Your task to perform on an android device: toggle location history Image 0: 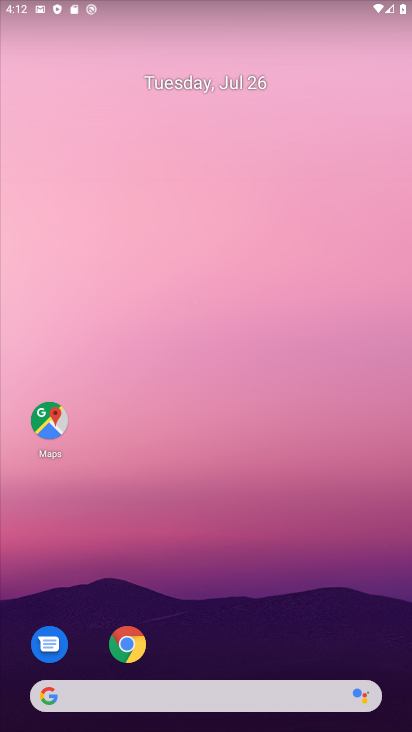
Step 0: drag from (238, 627) to (241, 12)
Your task to perform on an android device: toggle location history Image 1: 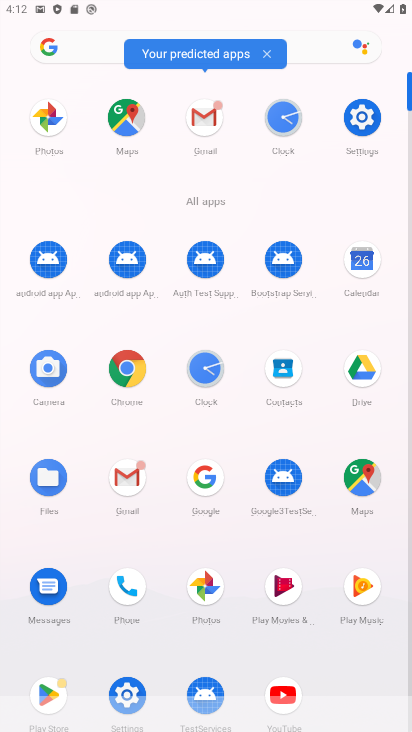
Step 1: click (365, 475)
Your task to perform on an android device: toggle location history Image 2: 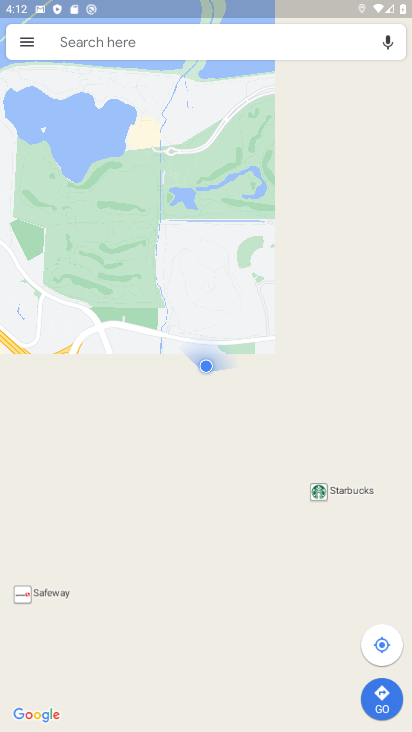
Step 2: click (21, 35)
Your task to perform on an android device: toggle location history Image 3: 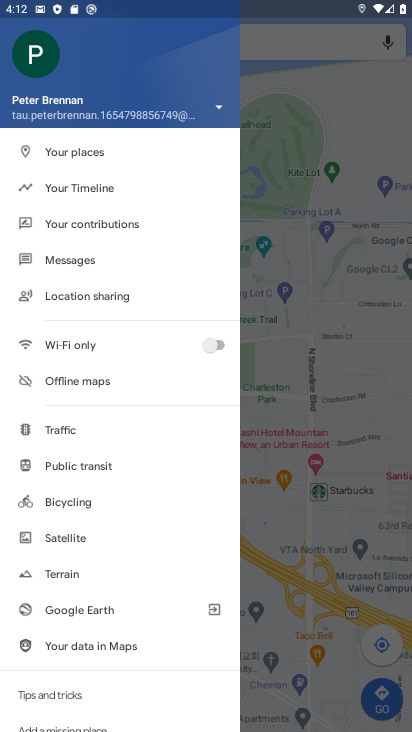
Step 3: click (91, 188)
Your task to perform on an android device: toggle location history Image 4: 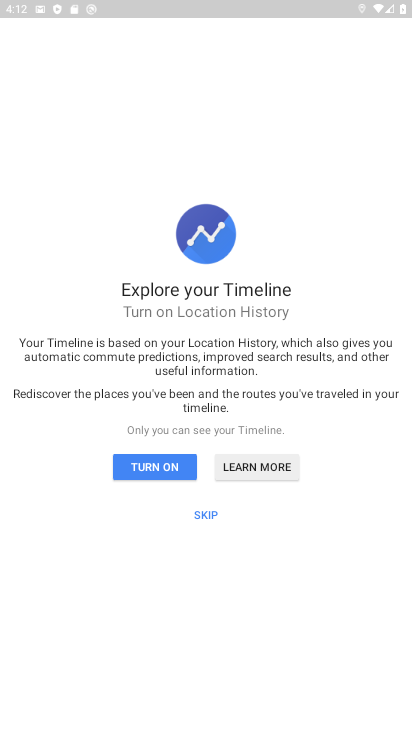
Step 4: click (175, 468)
Your task to perform on an android device: toggle location history Image 5: 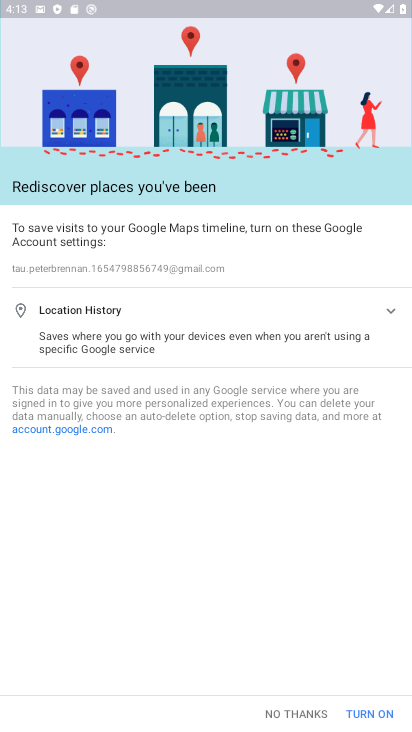
Step 5: click (108, 323)
Your task to perform on an android device: toggle location history Image 6: 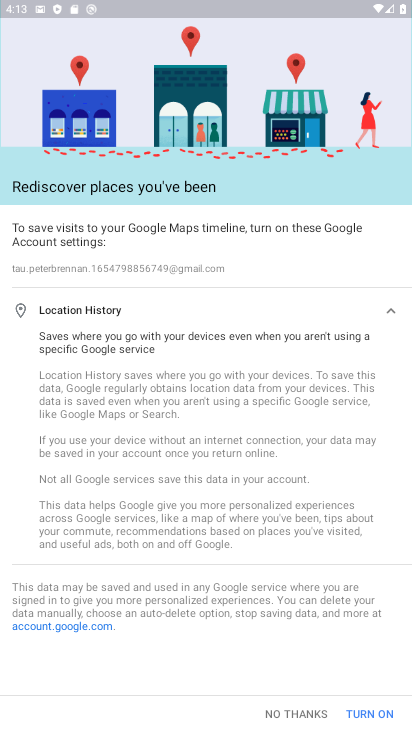
Step 6: click (349, 717)
Your task to perform on an android device: toggle location history Image 7: 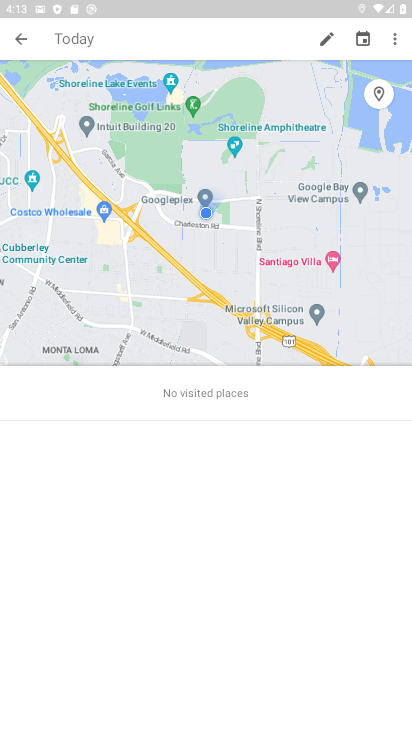
Step 7: click (390, 39)
Your task to perform on an android device: toggle location history Image 8: 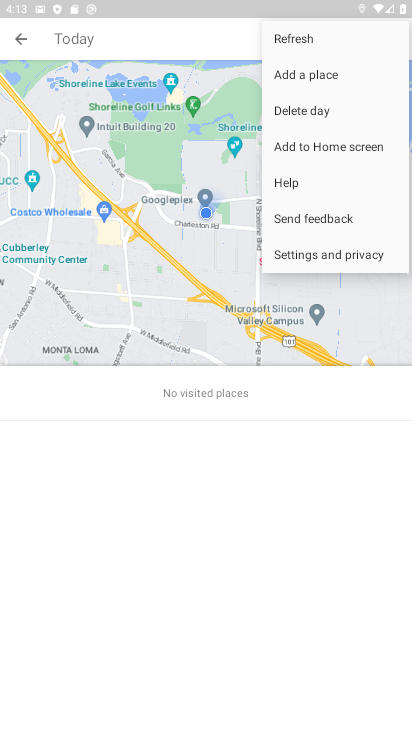
Step 8: click (312, 260)
Your task to perform on an android device: toggle location history Image 9: 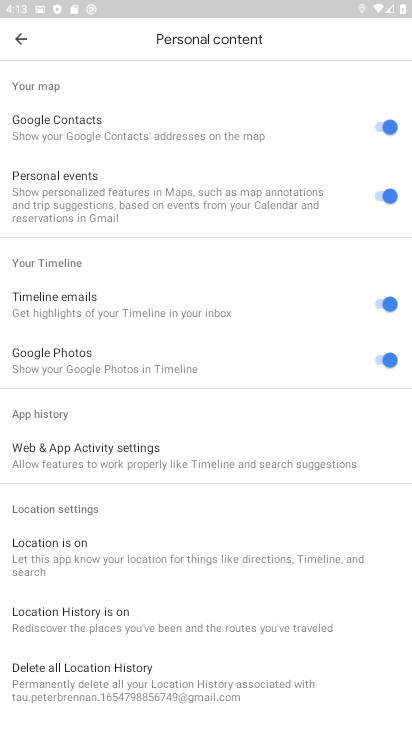
Step 9: click (123, 610)
Your task to perform on an android device: toggle location history Image 10: 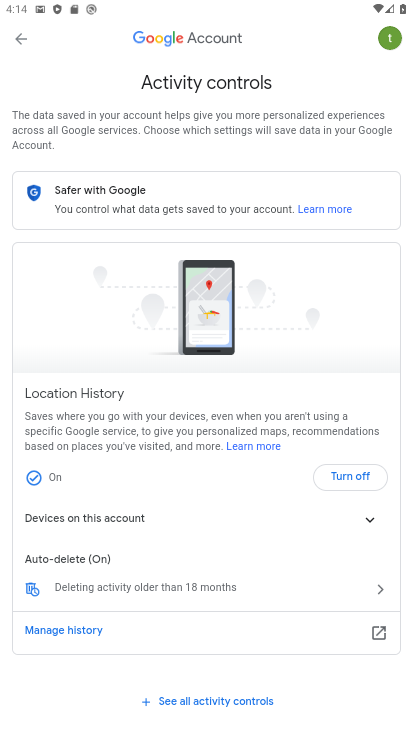
Step 10: click (355, 476)
Your task to perform on an android device: toggle location history Image 11: 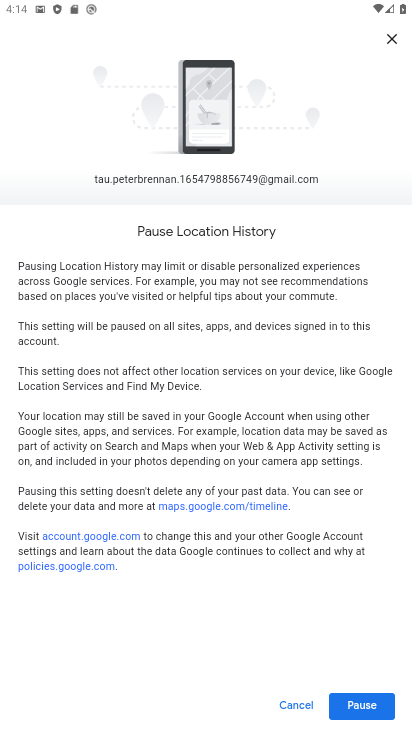
Step 11: click (372, 700)
Your task to perform on an android device: toggle location history Image 12: 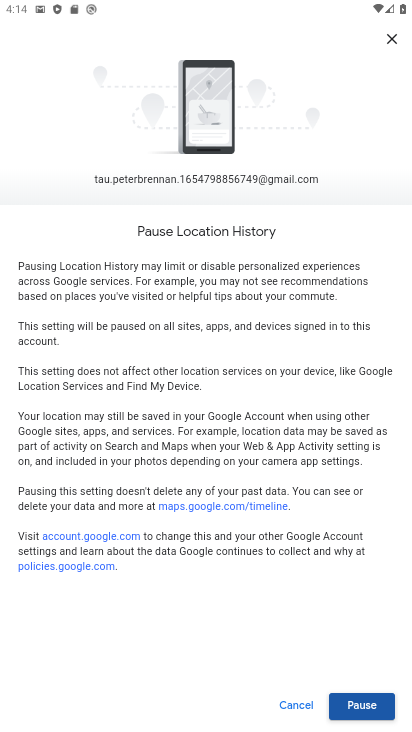
Step 12: click (372, 704)
Your task to perform on an android device: toggle location history Image 13: 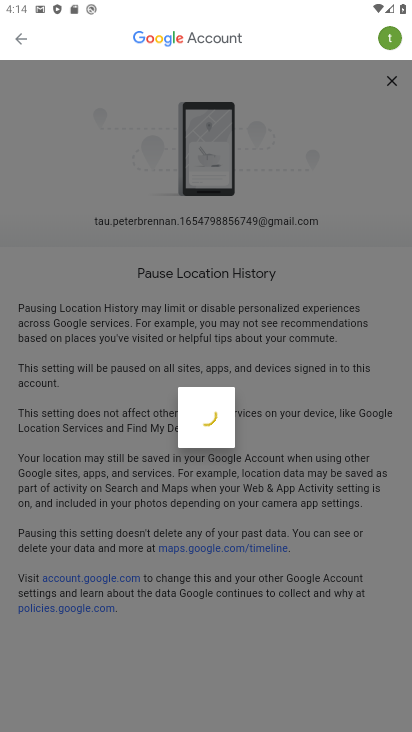
Step 13: click (372, 704)
Your task to perform on an android device: toggle location history Image 14: 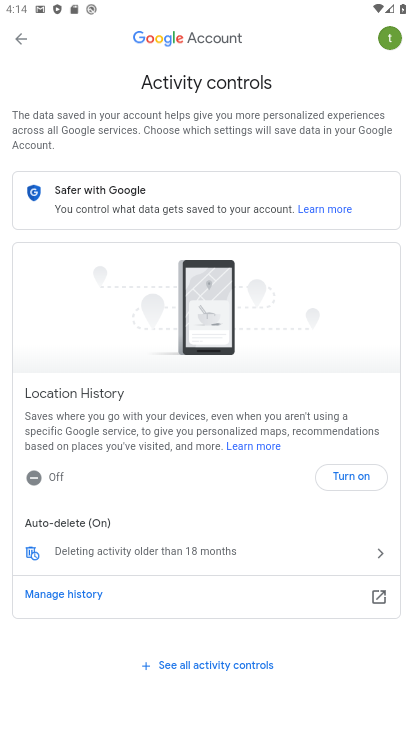
Step 14: task complete